Your task to perform on an android device: Search for vegetarian restaurants on Maps Image 0: 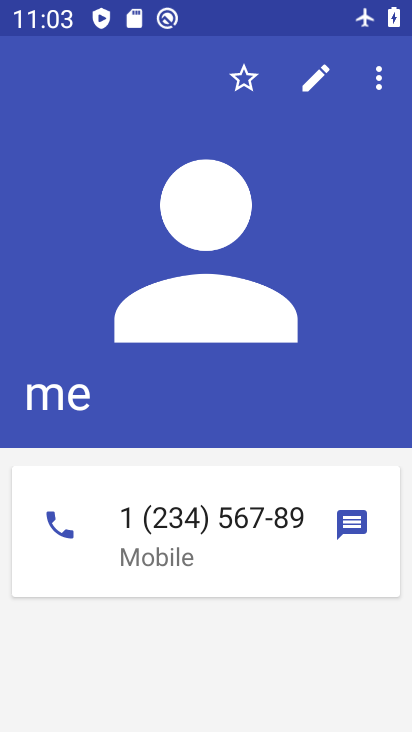
Step 0: press back button
Your task to perform on an android device: Search for vegetarian restaurants on Maps Image 1: 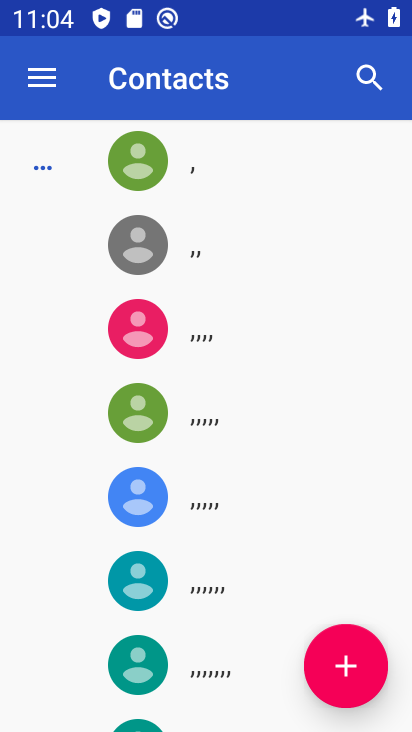
Step 1: press back button
Your task to perform on an android device: Search for vegetarian restaurants on Maps Image 2: 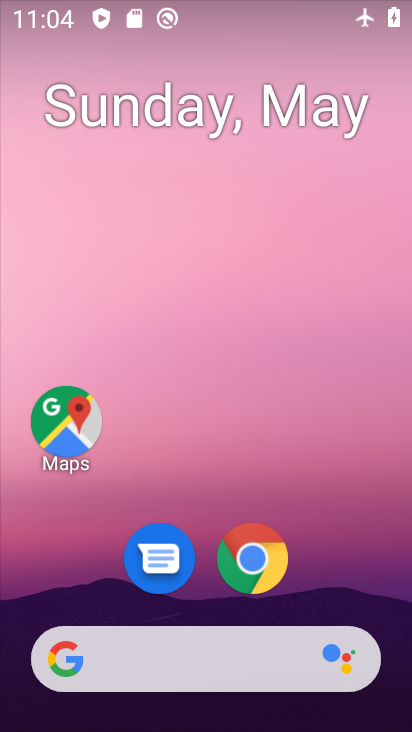
Step 2: drag from (362, 553) to (382, 125)
Your task to perform on an android device: Search for vegetarian restaurants on Maps Image 3: 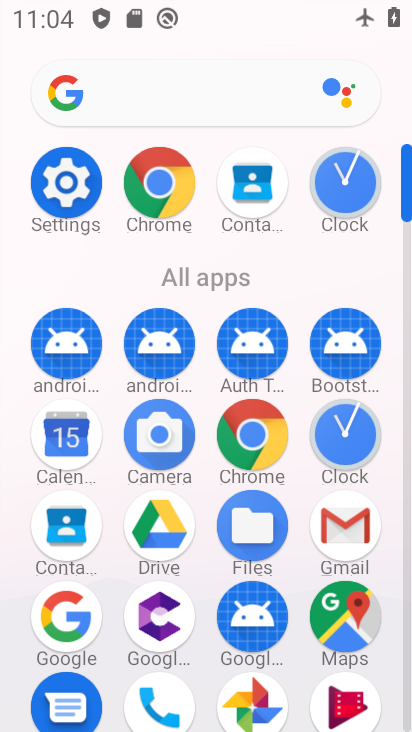
Step 3: click (371, 626)
Your task to perform on an android device: Search for vegetarian restaurants on Maps Image 4: 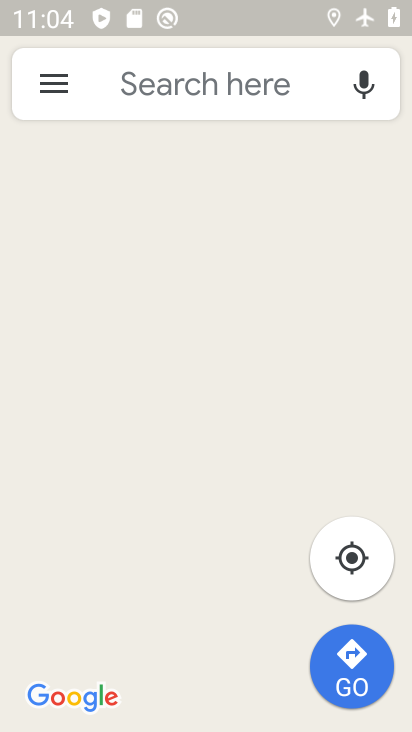
Step 4: click (192, 96)
Your task to perform on an android device: Search for vegetarian restaurants on Maps Image 5: 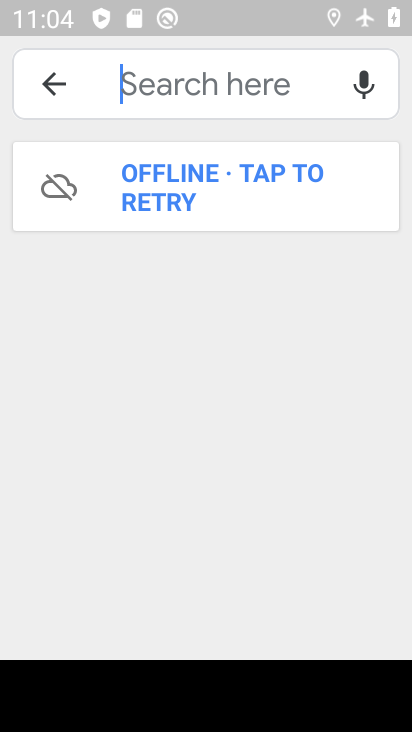
Step 5: type "vegetrain restaurants"
Your task to perform on an android device: Search for vegetarian restaurants on Maps Image 6: 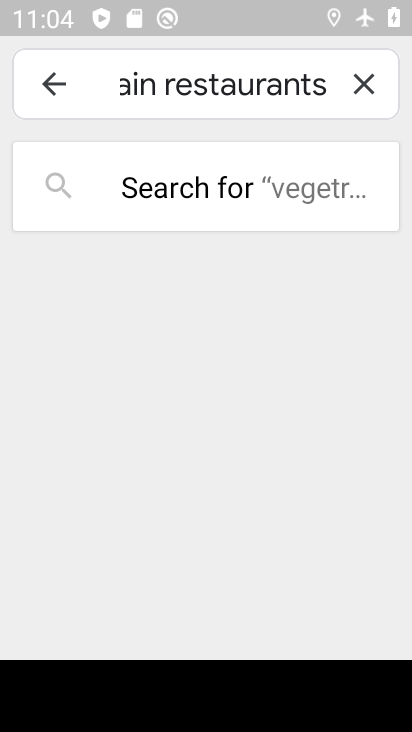
Step 6: task complete